Your task to perform on an android device: Open my contact list Image 0: 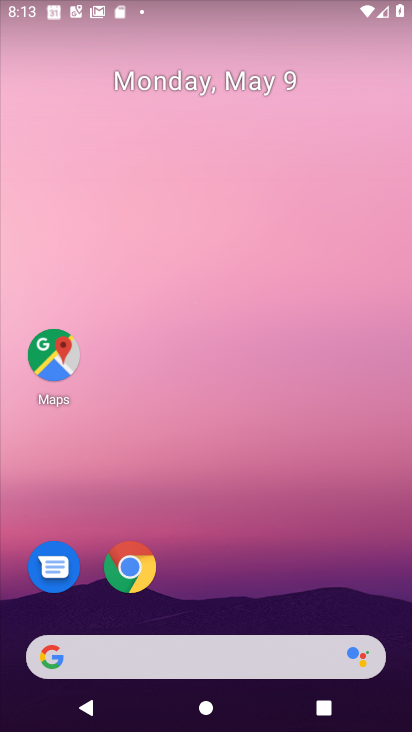
Step 0: drag from (219, 616) to (251, 354)
Your task to perform on an android device: Open my contact list Image 1: 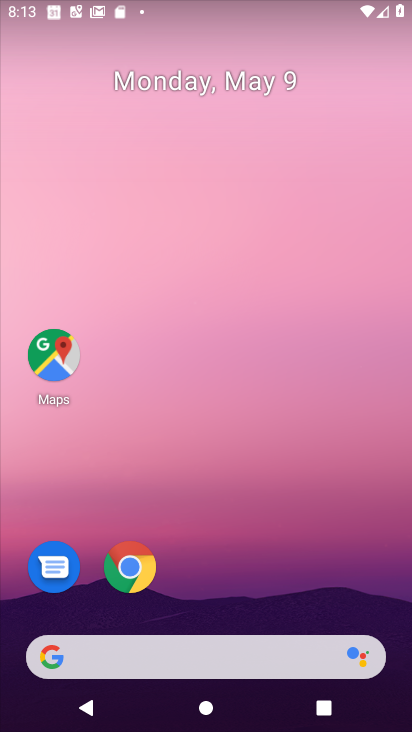
Step 1: drag from (206, 603) to (320, 229)
Your task to perform on an android device: Open my contact list Image 2: 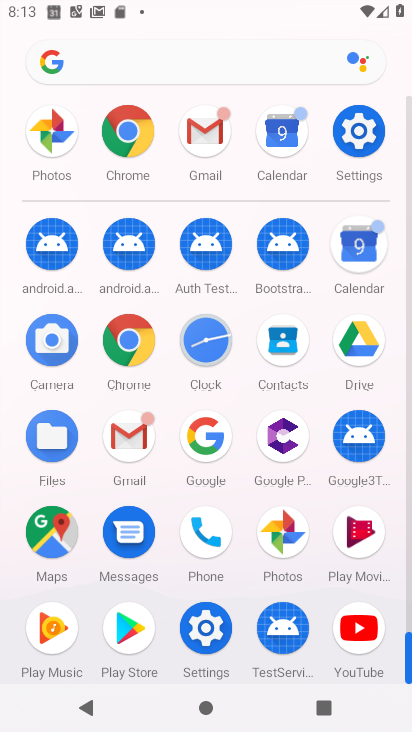
Step 2: click (274, 337)
Your task to perform on an android device: Open my contact list Image 3: 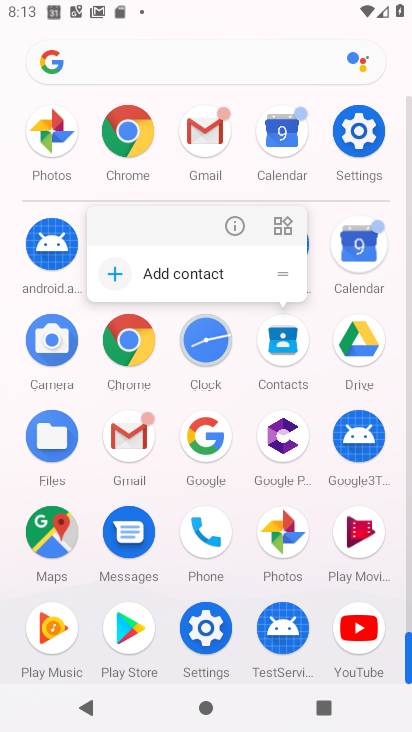
Step 3: click (232, 226)
Your task to perform on an android device: Open my contact list Image 4: 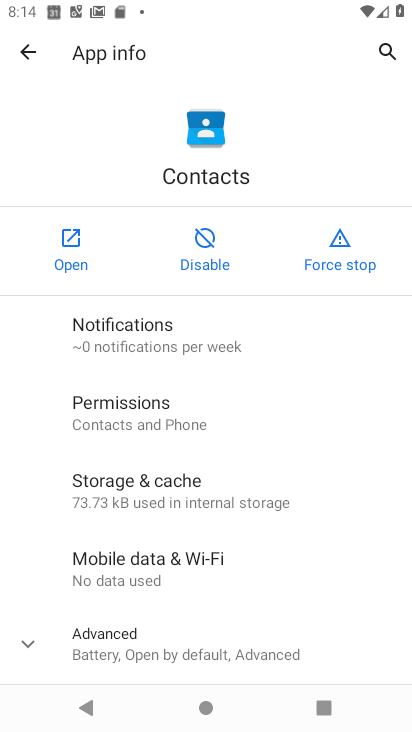
Step 4: drag from (192, 609) to (246, 394)
Your task to perform on an android device: Open my contact list Image 5: 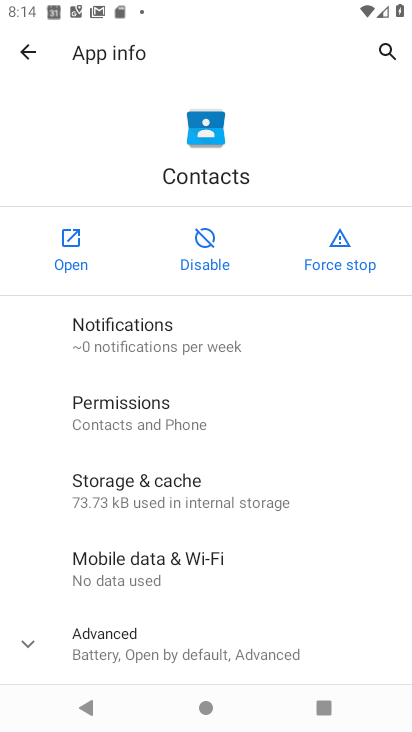
Step 5: click (40, 235)
Your task to perform on an android device: Open my contact list Image 6: 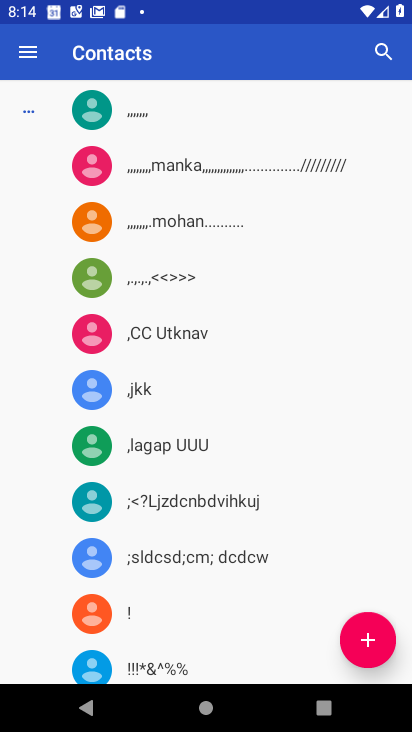
Step 6: task complete